Your task to perform on an android device: Toggle the flashlight Image 0: 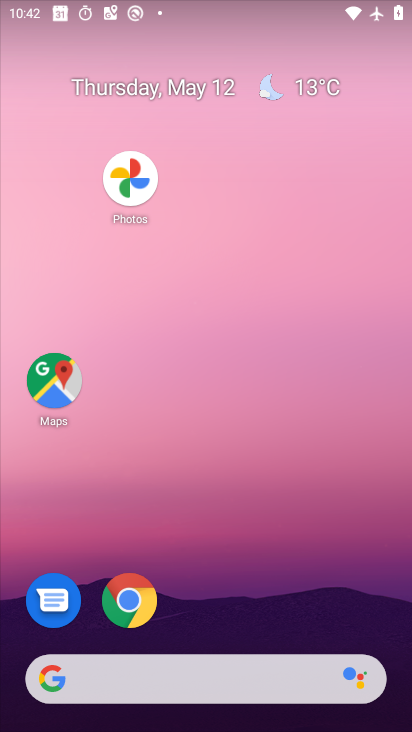
Step 0: drag from (268, 624) to (137, 12)
Your task to perform on an android device: Toggle the flashlight Image 1: 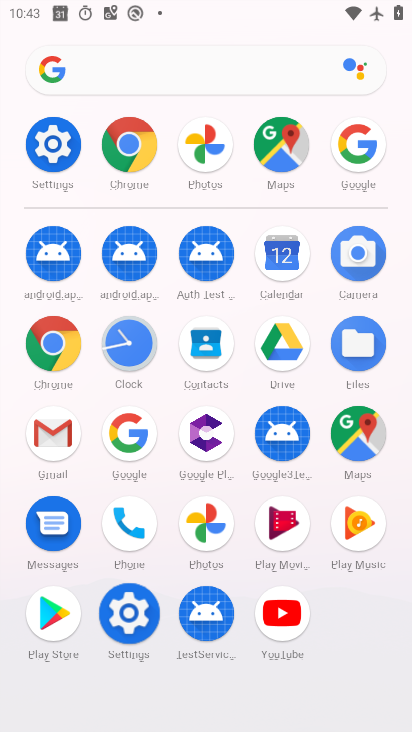
Step 1: drag from (280, 247) to (223, 38)
Your task to perform on an android device: Toggle the flashlight Image 2: 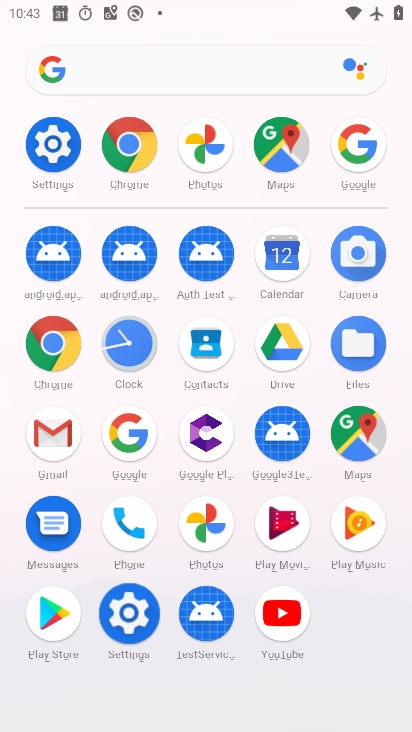
Step 2: click (190, 60)
Your task to perform on an android device: Toggle the flashlight Image 3: 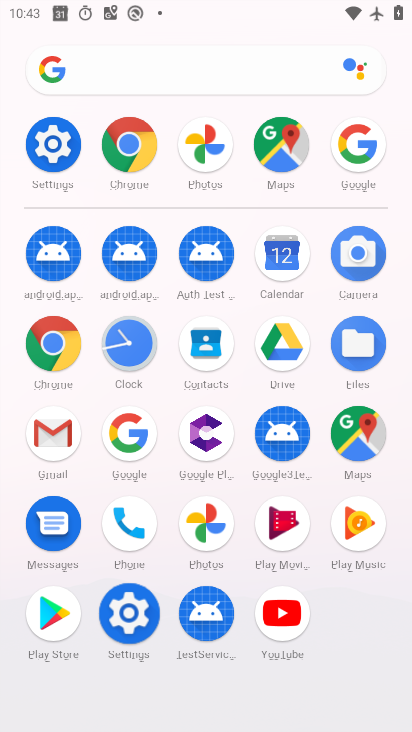
Step 3: click (116, 62)
Your task to perform on an android device: Toggle the flashlight Image 4: 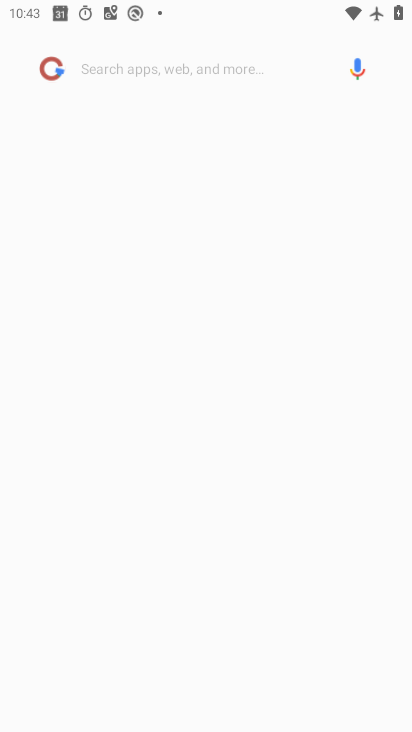
Step 4: task complete